Your task to perform on an android device: toggle pop-ups in chrome Image 0: 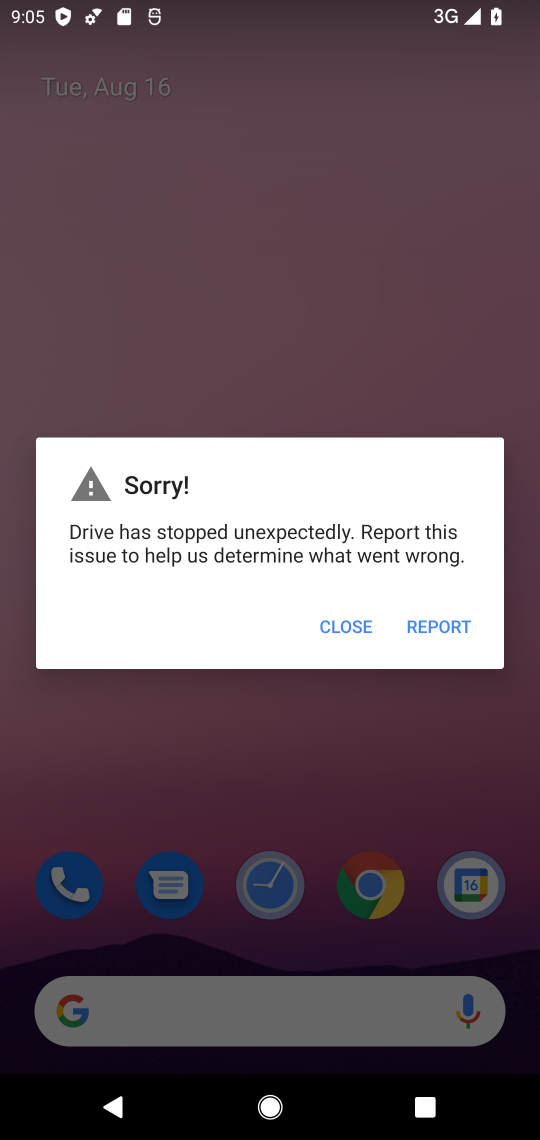
Step 0: press home button
Your task to perform on an android device: toggle pop-ups in chrome Image 1: 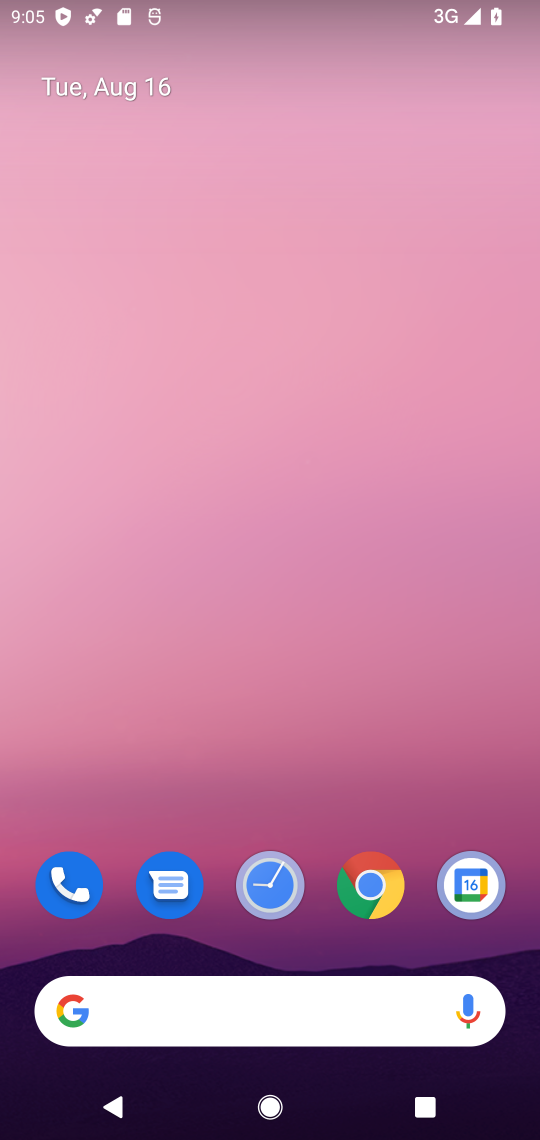
Step 1: click (358, 885)
Your task to perform on an android device: toggle pop-ups in chrome Image 2: 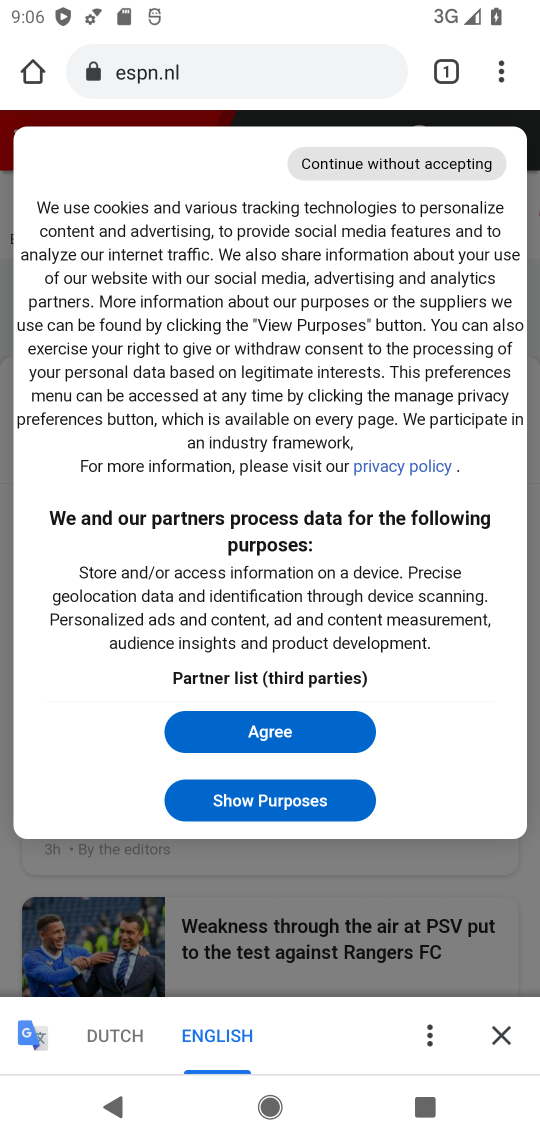
Step 2: click (506, 80)
Your task to perform on an android device: toggle pop-ups in chrome Image 3: 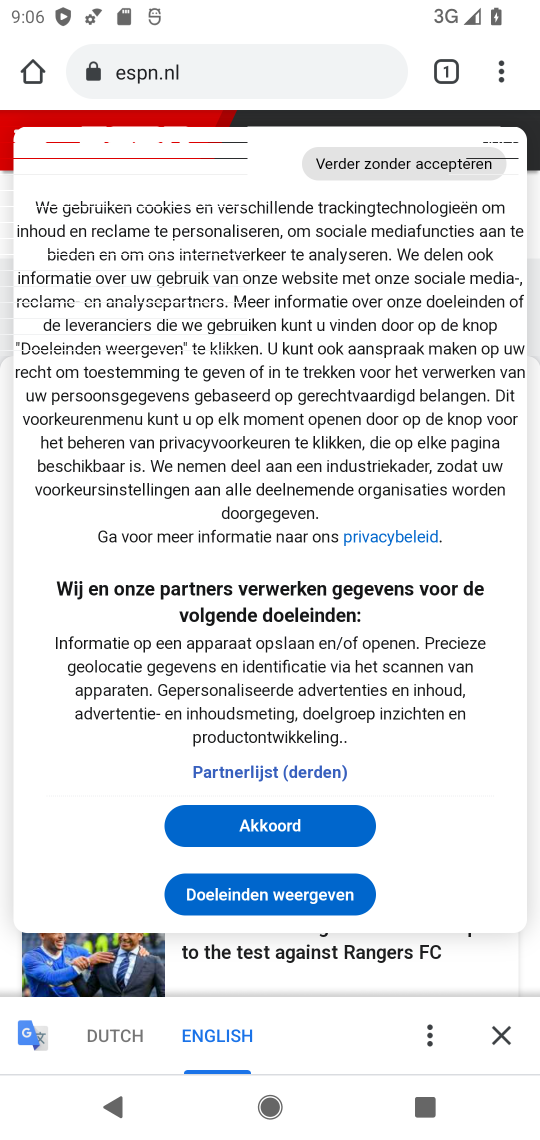
Step 3: click (497, 68)
Your task to perform on an android device: toggle pop-ups in chrome Image 4: 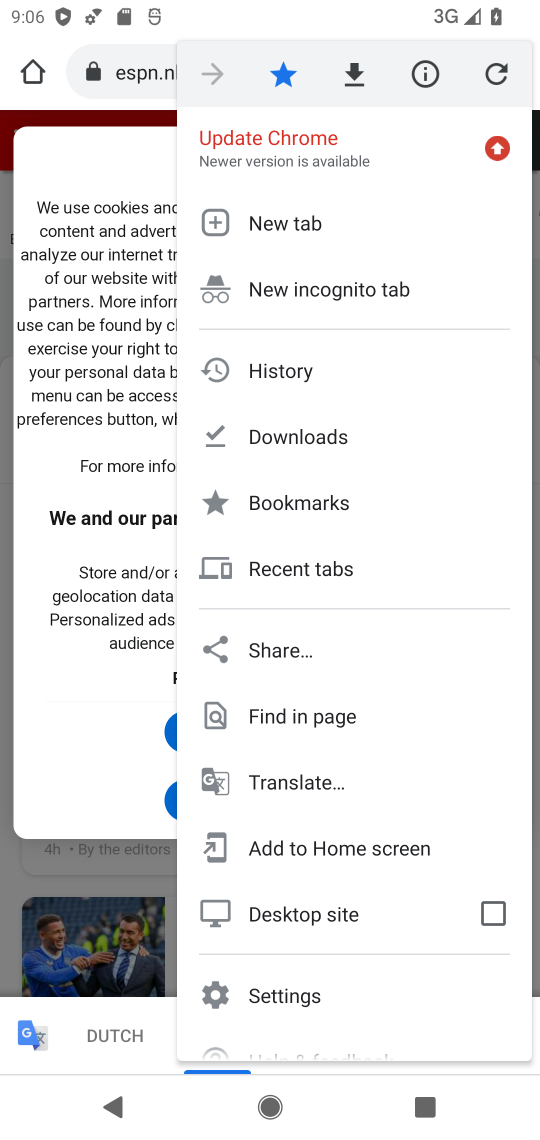
Step 4: click (281, 993)
Your task to perform on an android device: toggle pop-ups in chrome Image 5: 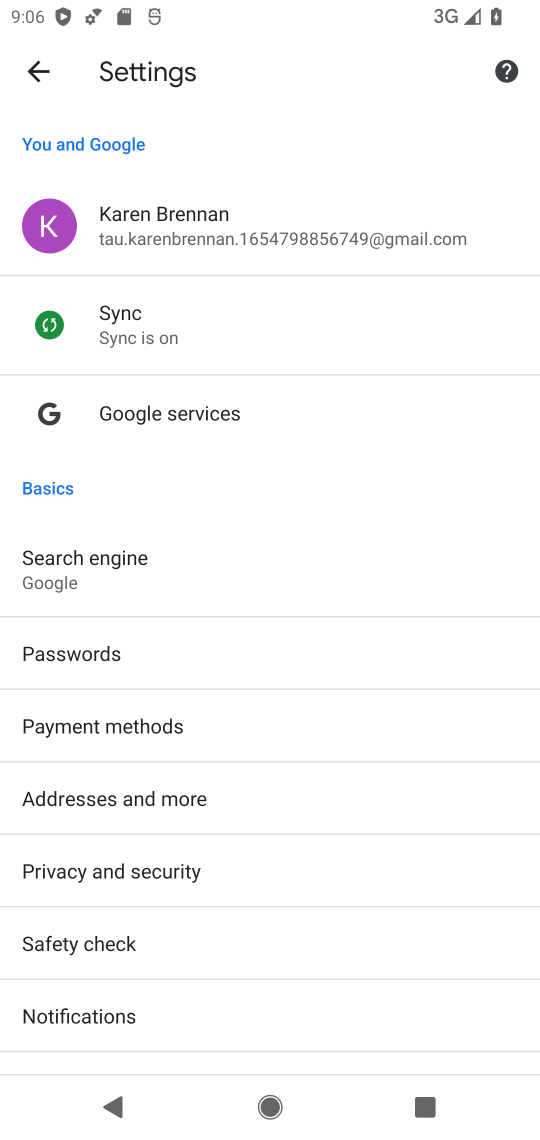
Step 5: drag from (123, 724) to (60, 363)
Your task to perform on an android device: toggle pop-ups in chrome Image 6: 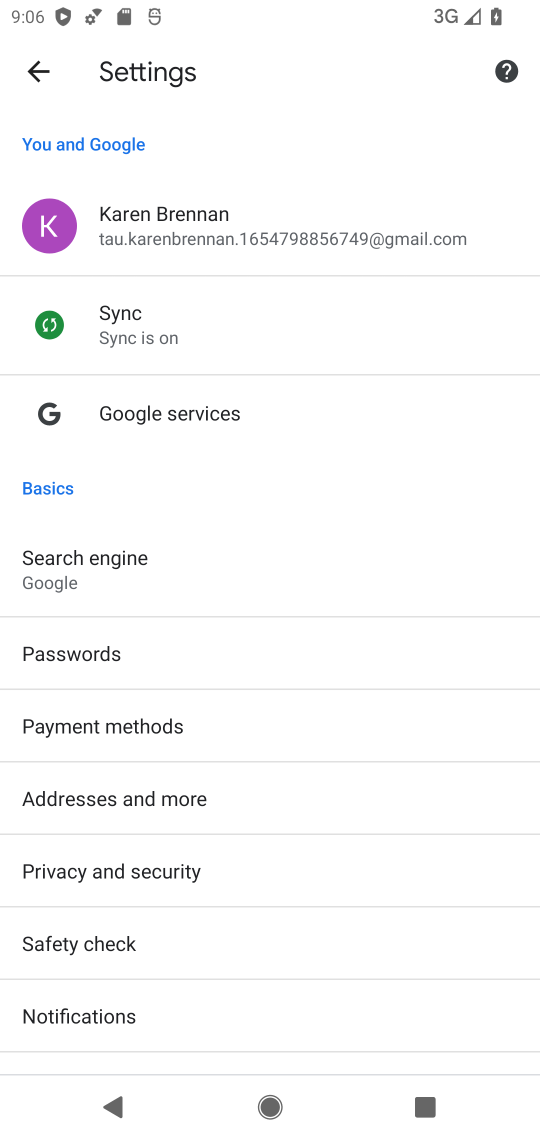
Step 6: drag from (227, 991) to (324, 403)
Your task to perform on an android device: toggle pop-ups in chrome Image 7: 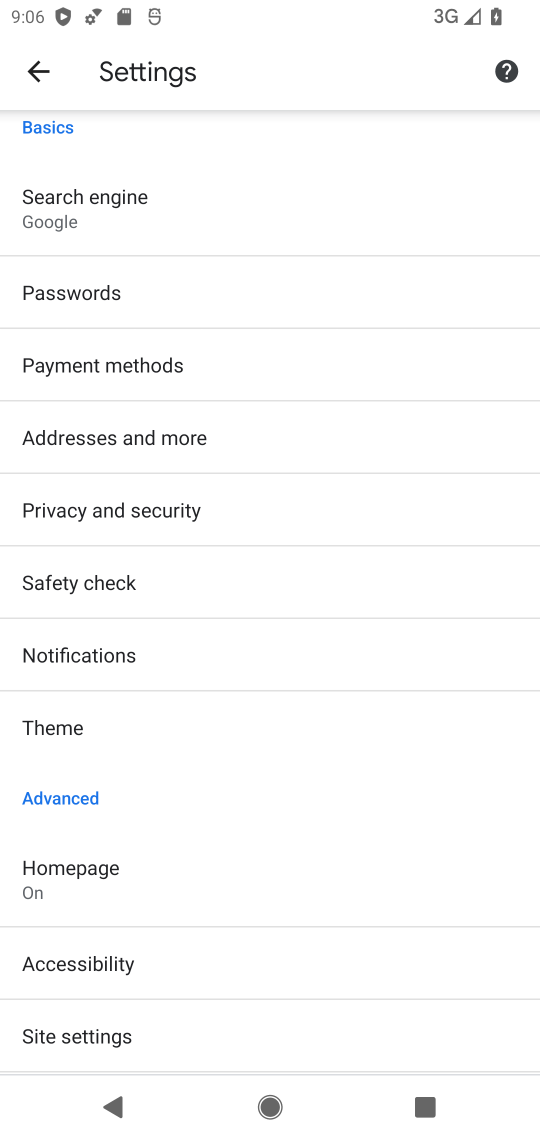
Step 7: click (120, 1034)
Your task to perform on an android device: toggle pop-ups in chrome Image 8: 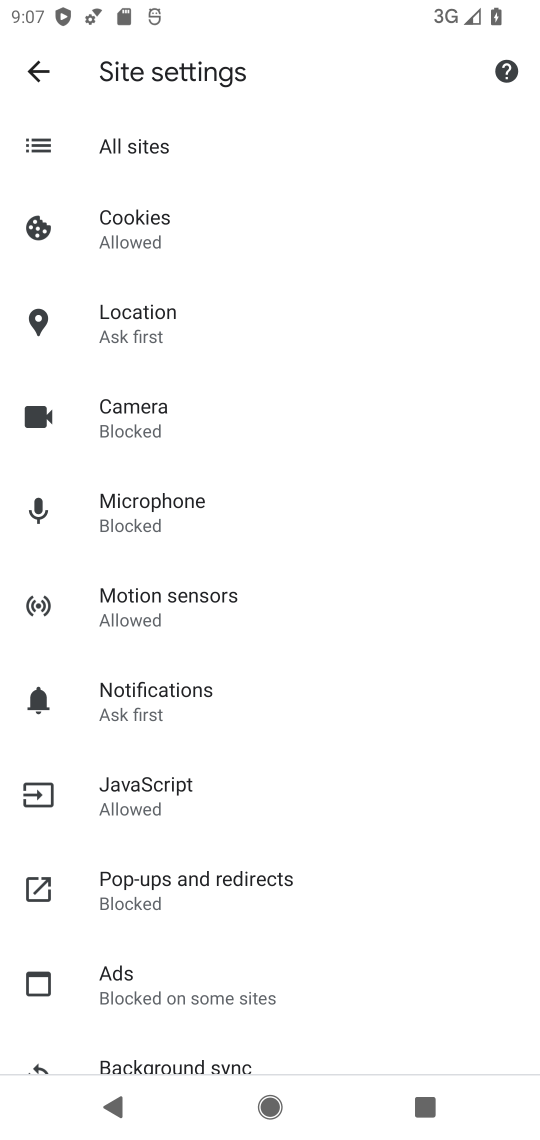
Step 8: click (230, 881)
Your task to perform on an android device: toggle pop-ups in chrome Image 9: 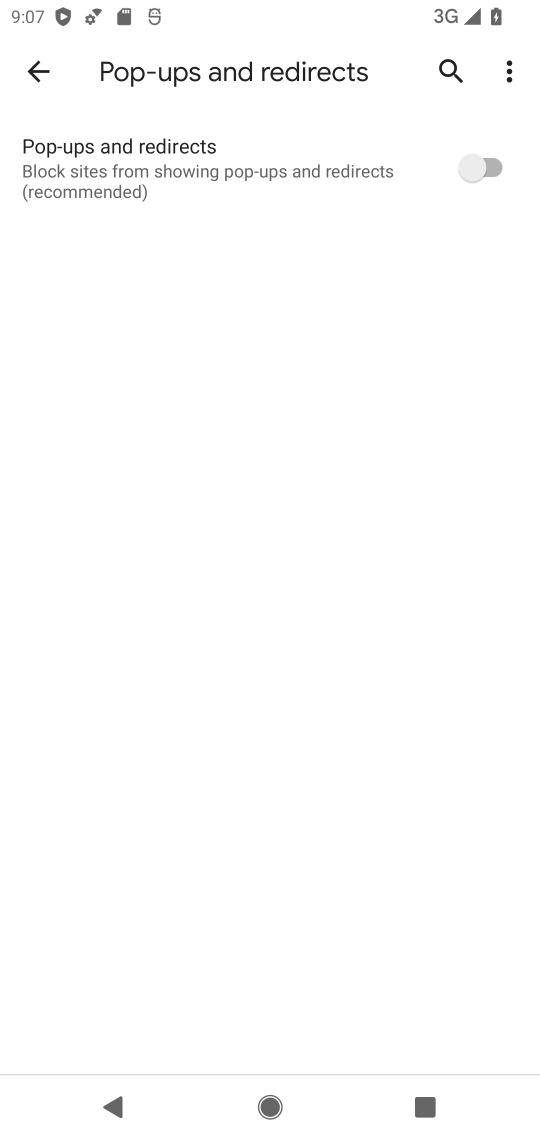
Step 9: click (512, 165)
Your task to perform on an android device: toggle pop-ups in chrome Image 10: 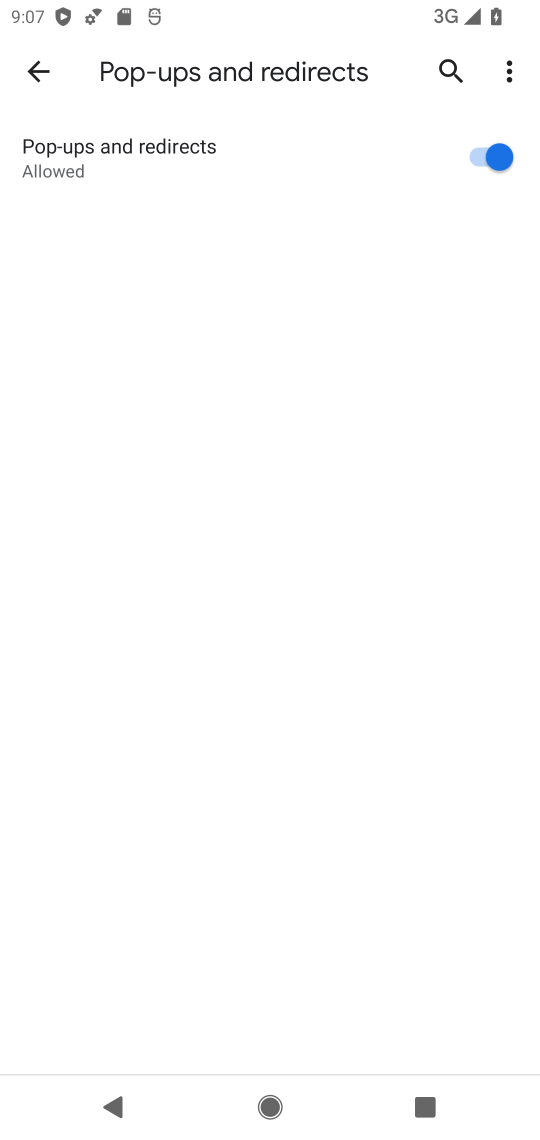
Step 10: task complete